Your task to perform on an android device: turn pop-ups on in chrome Image 0: 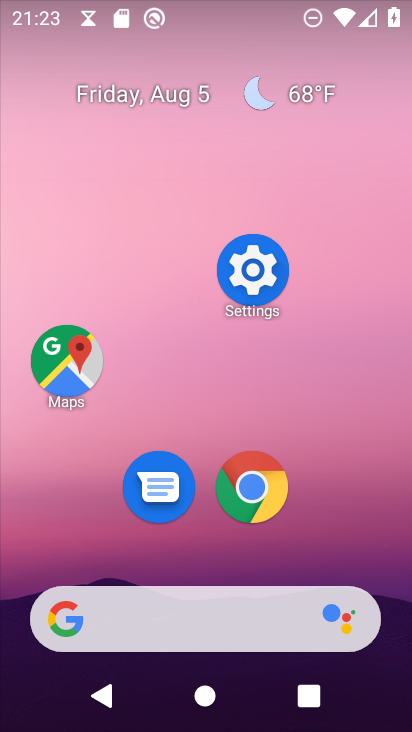
Step 0: press home button
Your task to perform on an android device: turn pop-ups on in chrome Image 1: 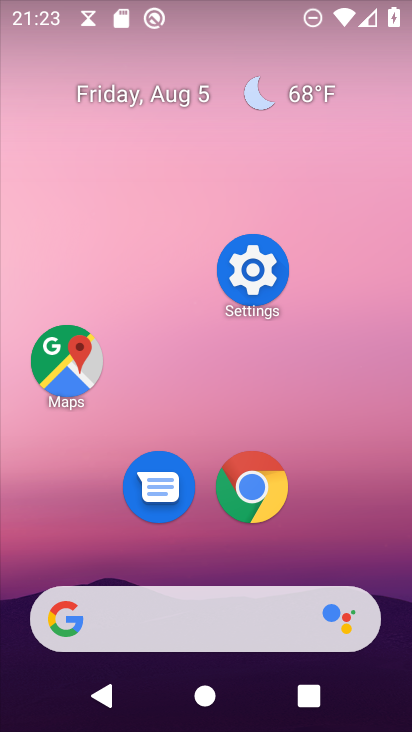
Step 1: click (267, 274)
Your task to perform on an android device: turn pop-ups on in chrome Image 2: 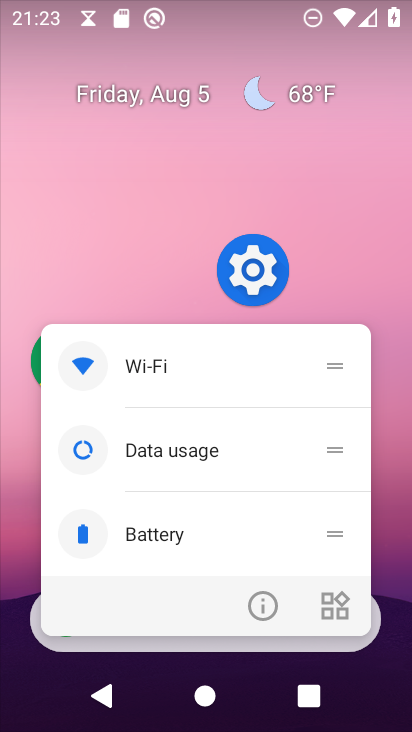
Step 2: click (370, 183)
Your task to perform on an android device: turn pop-ups on in chrome Image 3: 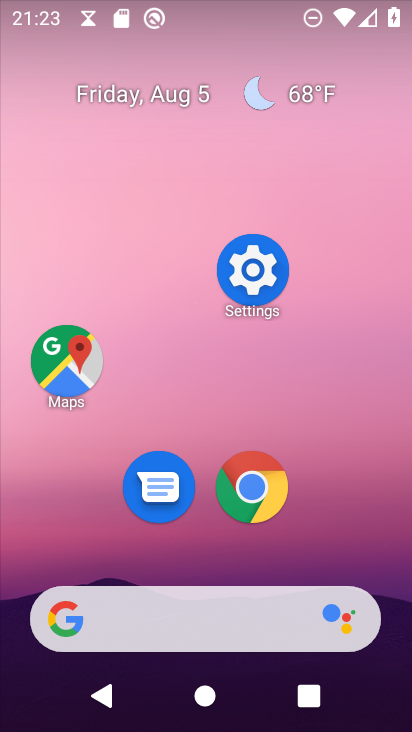
Step 3: click (256, 492)
Your task to perform on an android device: turn pop-ups on in chrome Image 4: 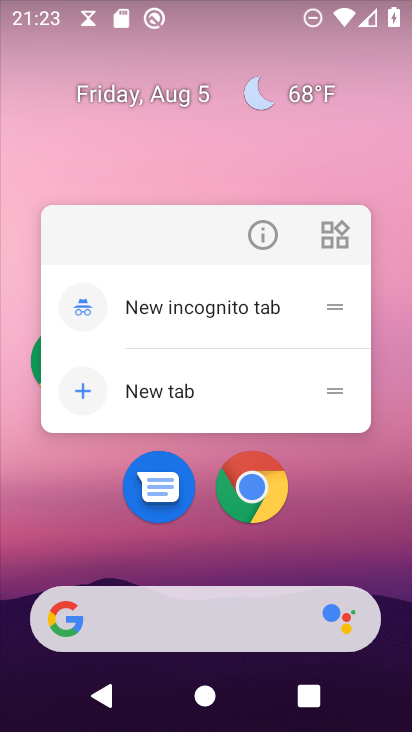
Step 4: click (256, 492)
Your task to perform on an android device: turn pop-ups on in chrome Image 5: 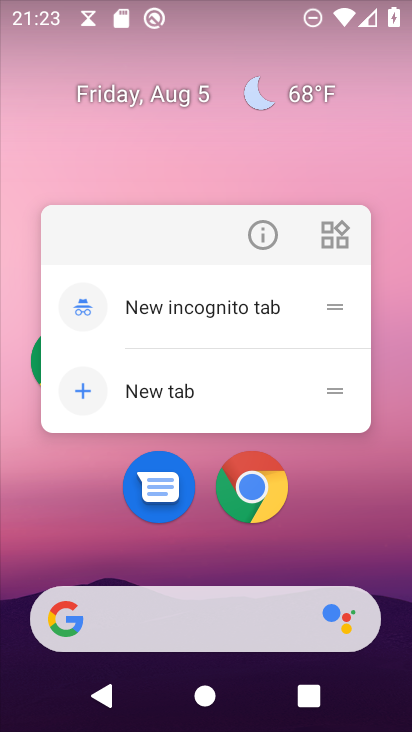
Step 5: click (256, 496)
Your task to perform on an android device: turn pop-ups on in chrome Image 6: 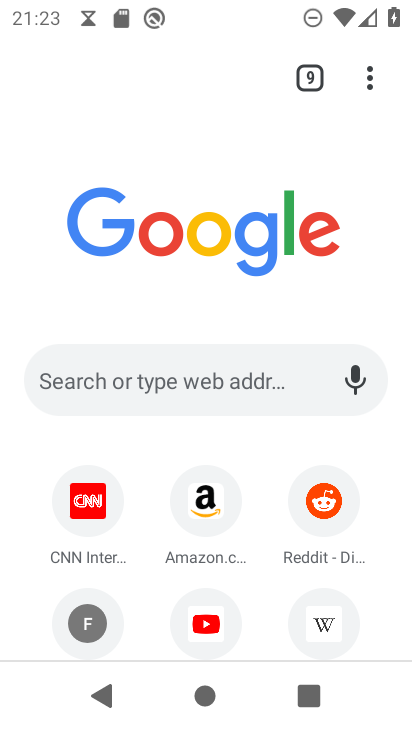
Step 6: drag from (372, 79) to (223, 543)
Your task to perform on an android device: turn pop-ups on in chrome Image 7: 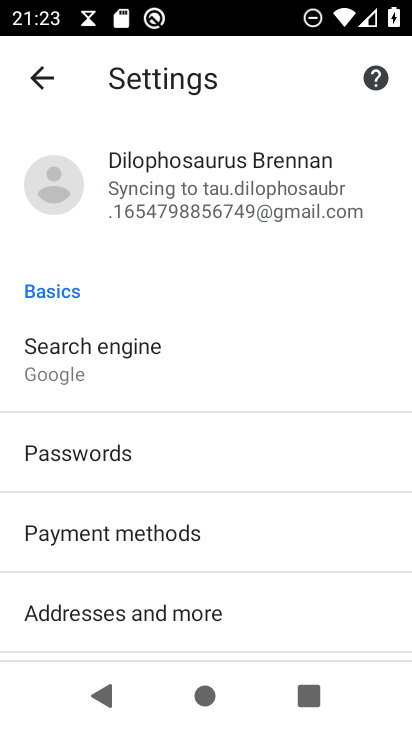
Step 7: drag from (240, 629) to (328, 231)
Your task to perform on an android device: turn pop-ups on in chrome Image 8: 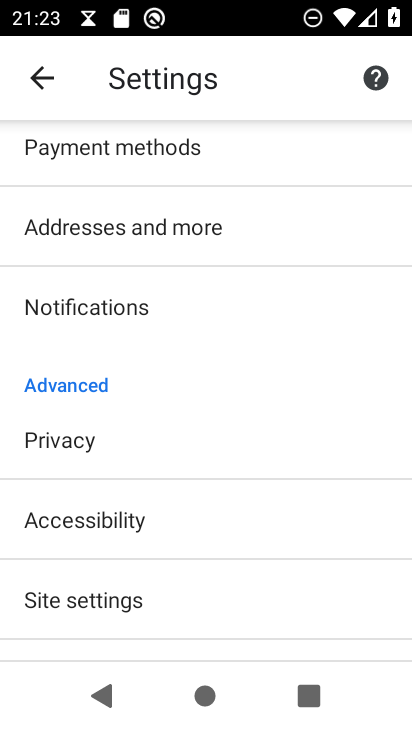
Step 8: click (136, 594)
Your task to perform on an android device: turn pop-ups on in chrome Image 9: 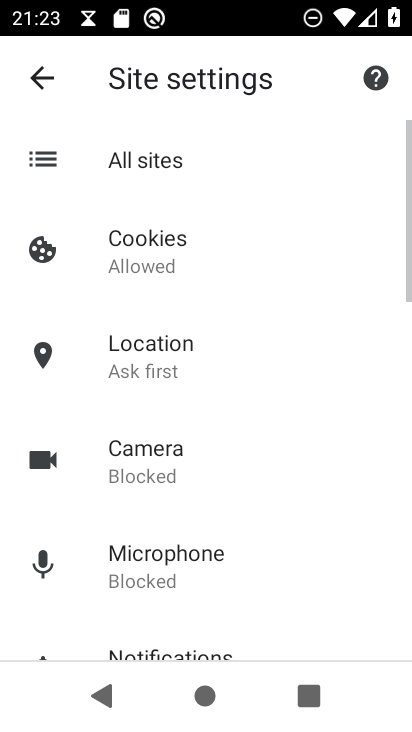
Step 9: drag from (192, 545) to (309, 191)
Your task to perform on an android device: turn pop-ups on in chrome Image 10: 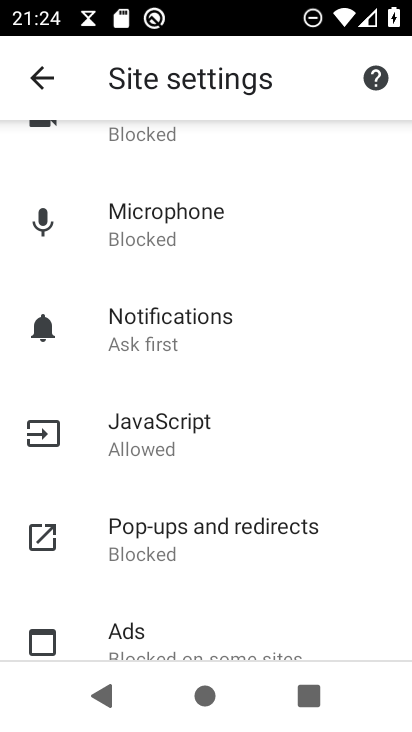
Step 10: click (186, 533)
Your task to perform on an android device: turn pop-ups on in chrome Image 11: 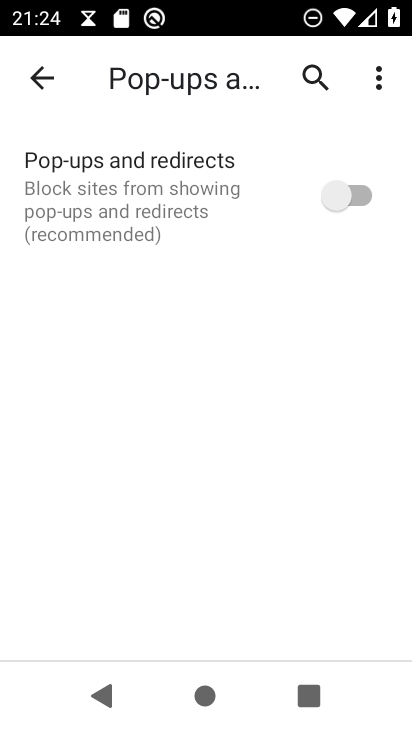
Step 11: click (359, 186)
Your task to perform on an android device: turn pop-ups on in chrome Image 12: 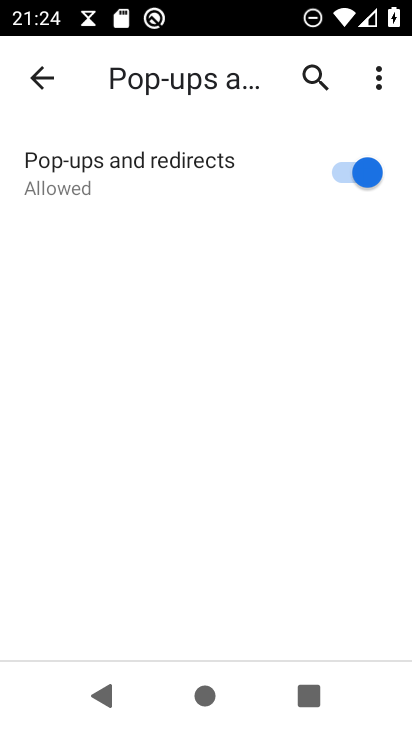
Step 12: task complete